Your task to perform on an android device: Go to location settings Image 0: 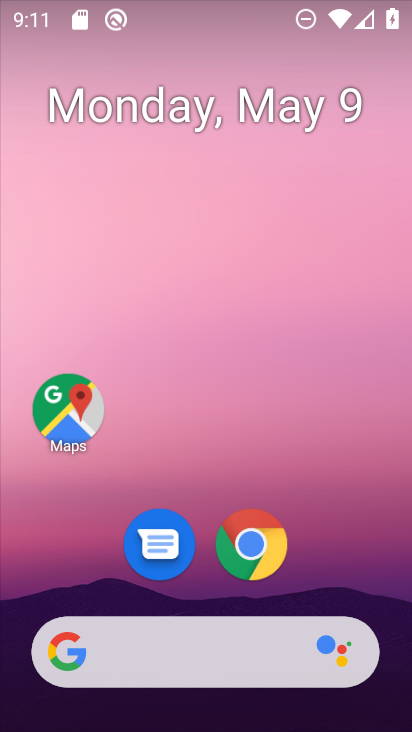
Step 0: drag from (316, 556) to (248, 2)
Your task to perform on an android device: Go to location settings Image 1: 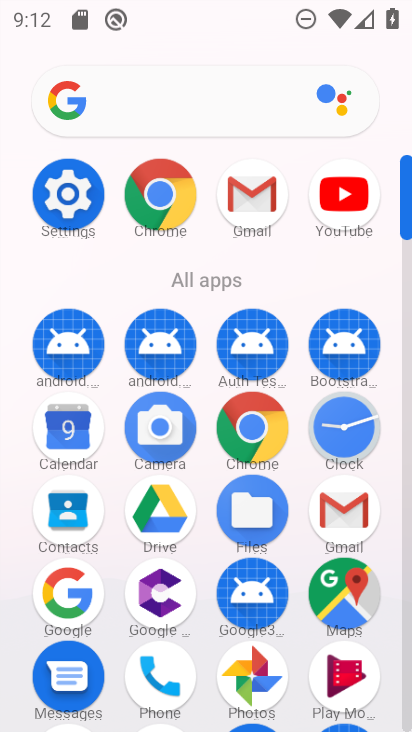
Step 1: click (72, 195)
Your task to perform on an android device: Go to location settings Image 2: 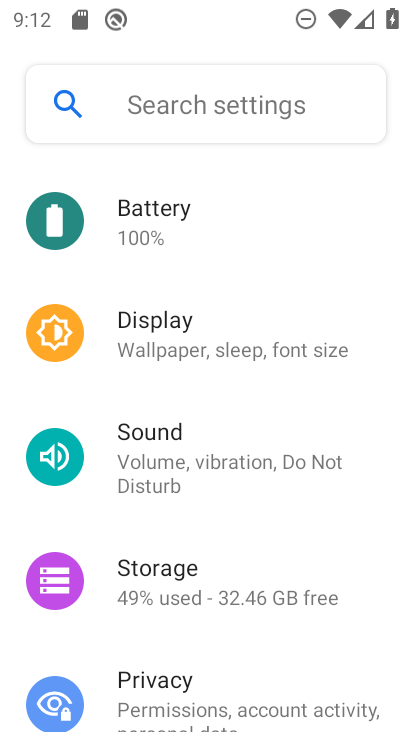
Step 2: drag from (194, 530) to (247, 11)
Your task to perform on an android device: Go to location settings Image 3: 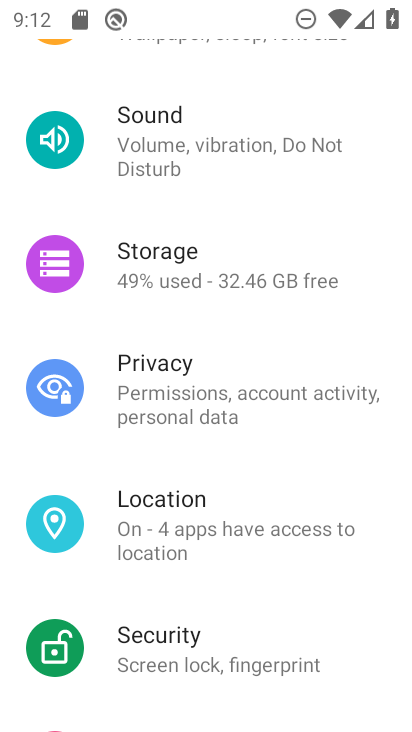
Step 3: click (159, 495)
Your task to perform on an android device: Go to location settings Image 4: 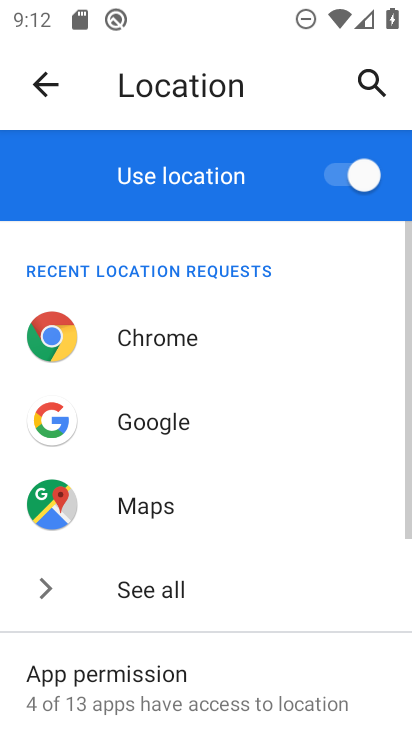
Step 4: task complete